Your task to perform on an android device: How big is a giraffe? Image 0: 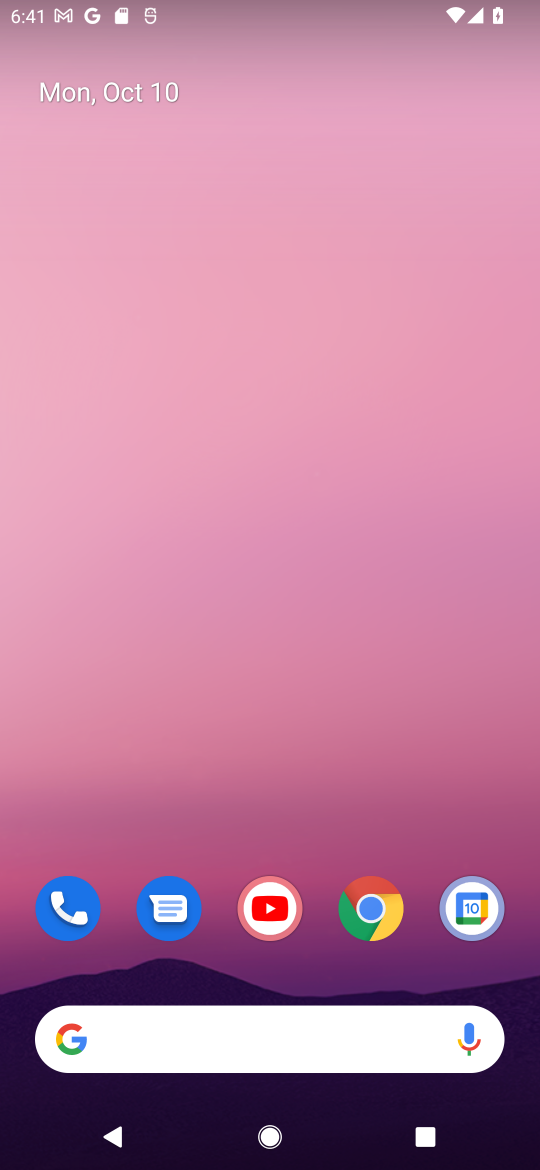
Step 0: drag from (408, 982) to (401, 190)
Your task to perform on an android device: How big is a giraffe? Image 1: 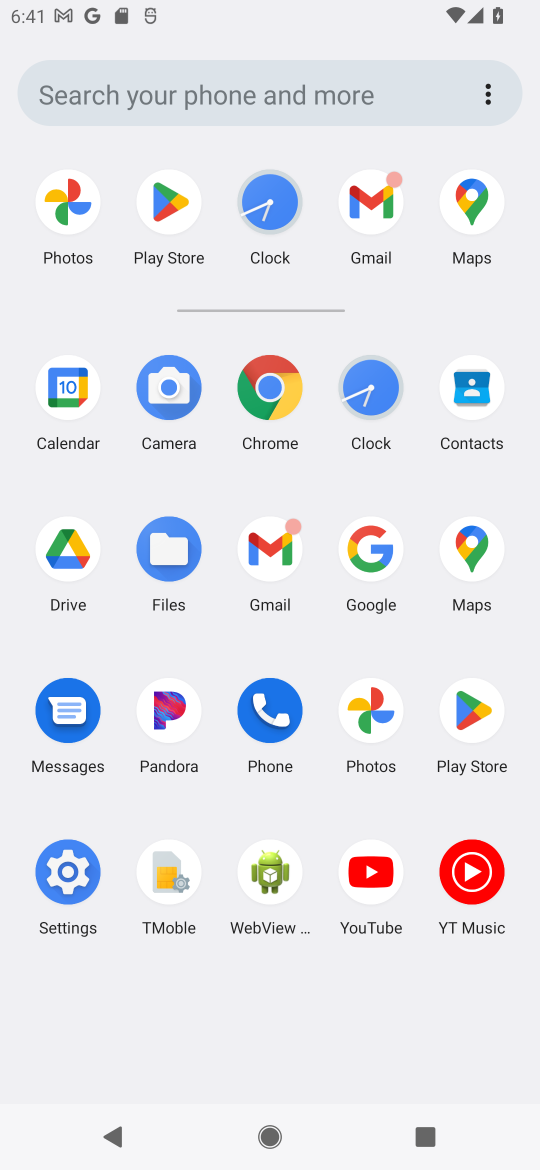
Step 1: click (283, 378)
Your task to perform on an android device: How big is a giraffe? Image 2: 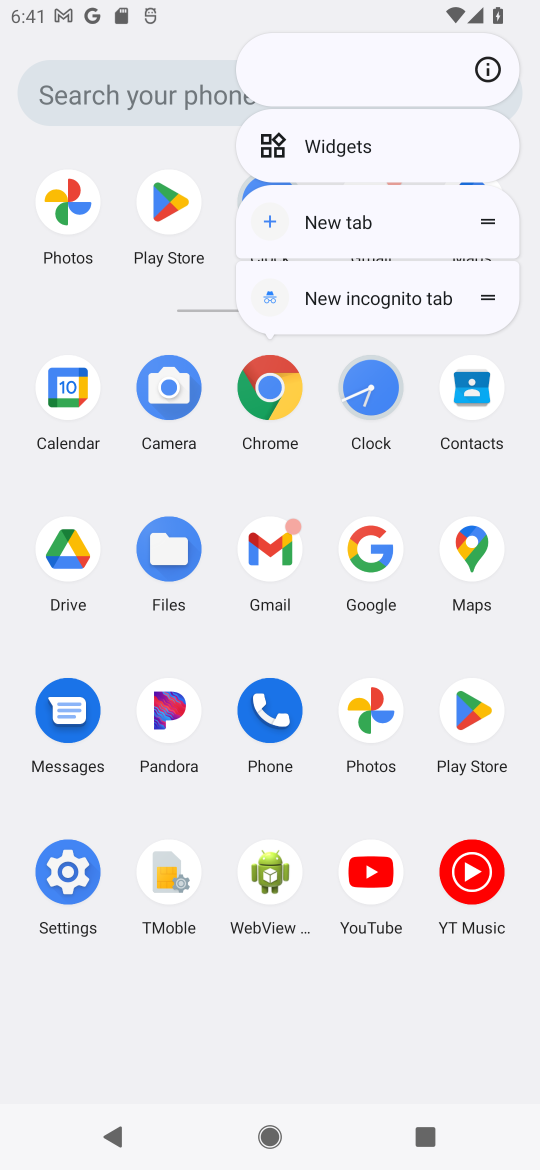
Step 2: click (246, 370)
Your task to perform on an android device: How big is a giraffe? Image 3: 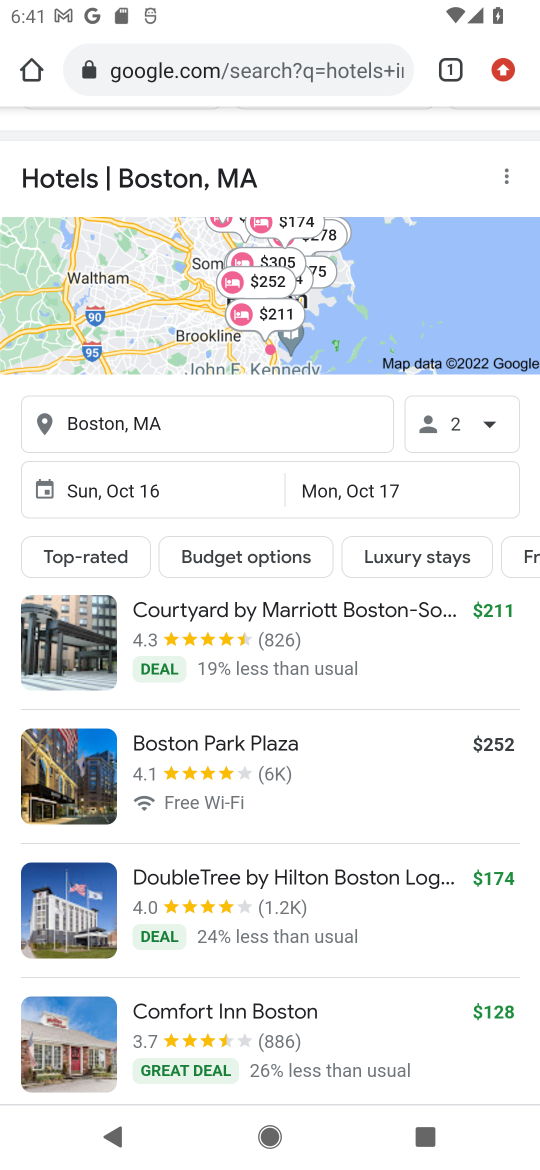
Step 3: click (144, 68)
Your task to perform on an android device: How big is a giraffe? Image 4: 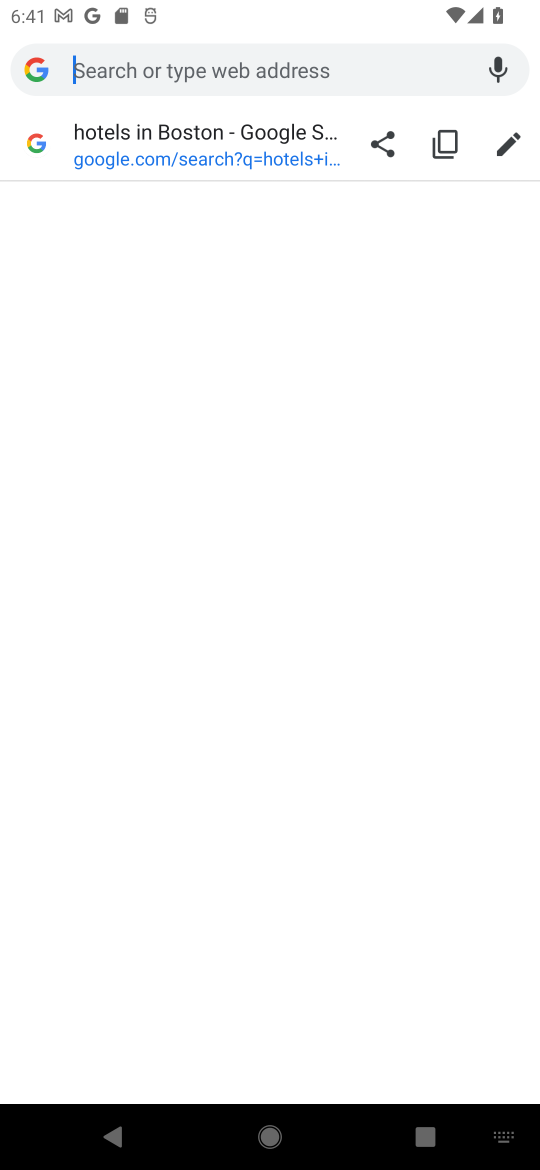
Step 4: type "How big is a giraffe?"
Your task to perform on an android device: How big is a giraffe? Image 5: 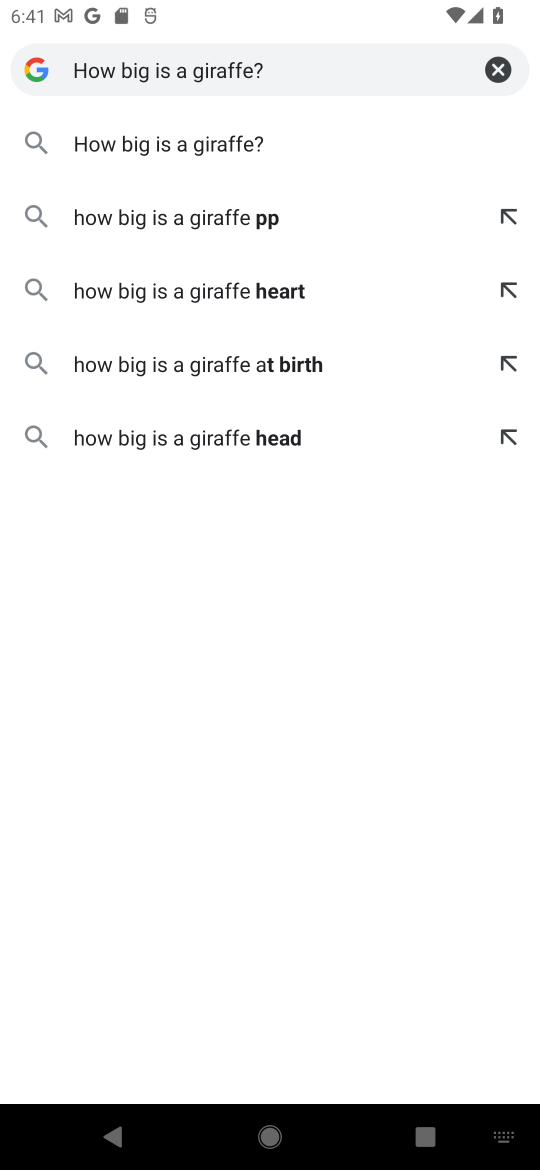
Step 5: press enter
Your task to perform on an android device: How big is a giraffe? Image 6: 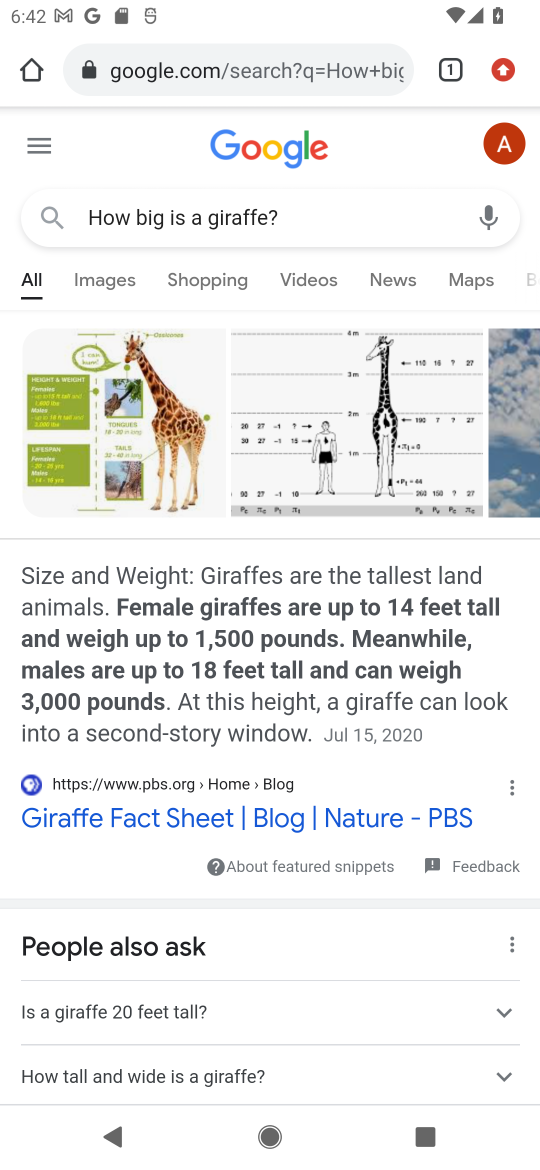
Step 6: task complete